Your task to perform on an android device: Is it going to rain tomorrow? Image 0: 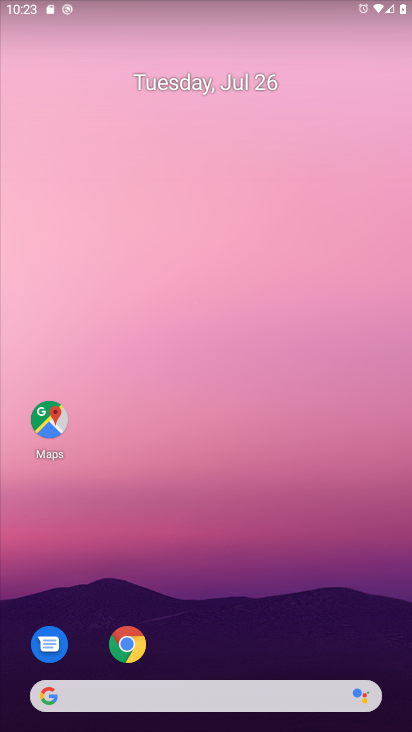
Step 0: click (162, 694)
Your task to perform on an android device: Is it going to rain tomorrow? Image 1: 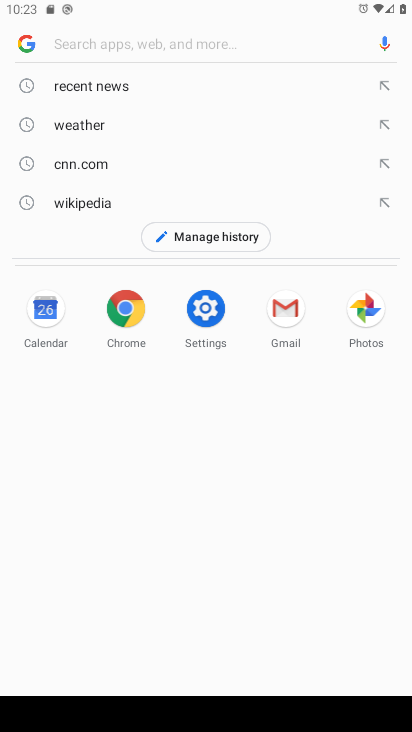
Step 1: click (107, 131)
Your task to perform on an android device: Is it going to rain tomorrow? Image 2: 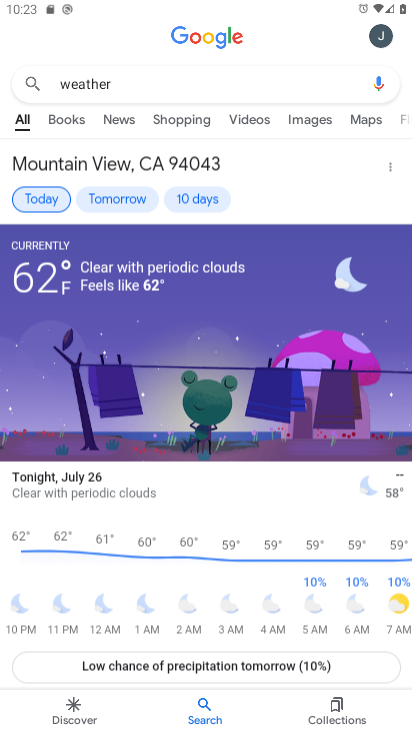
Step 2: click (133, 196)
Your task to perform on an android device: Is it going to rain tomorrow? Image 3: 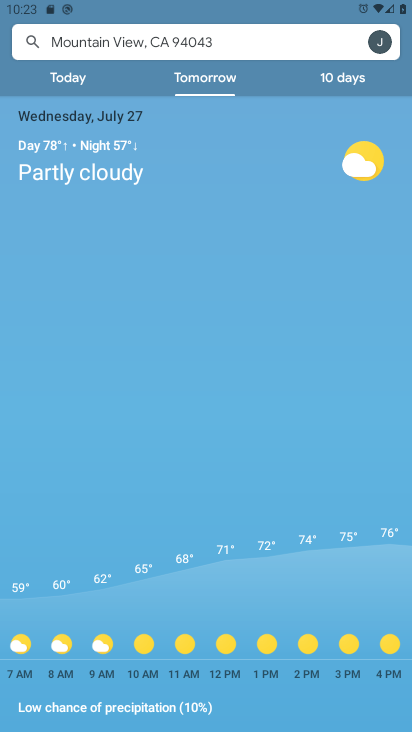
Step 3: task complete